Your task to perform on an android device: Open battery settings Image 0: 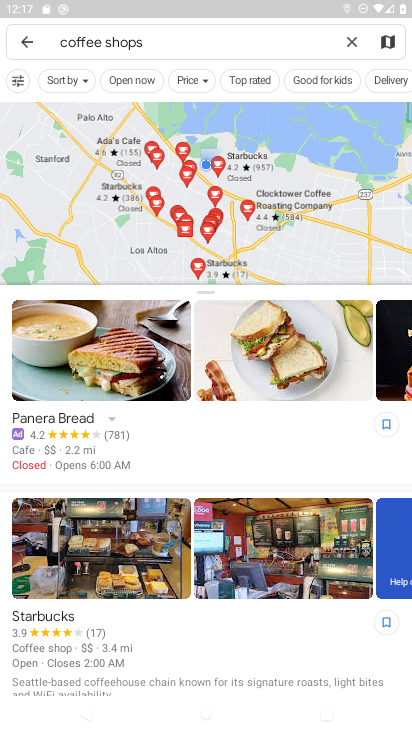
Step 0: press home button
Your task to perform on an android device: Open battery settings Image 1: 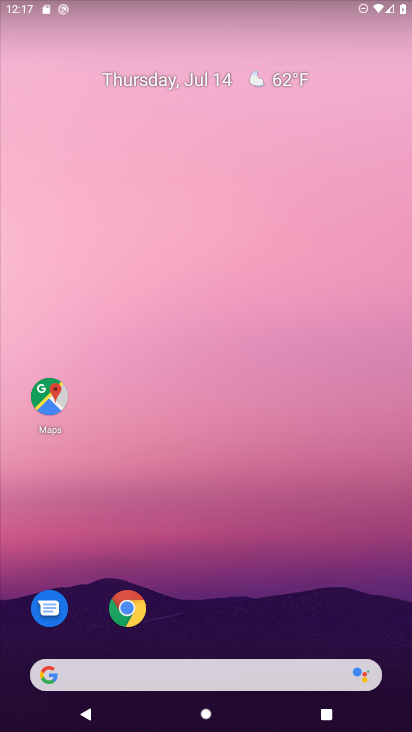
Step 1: drag from (246, 374) to (246, 130)
Your task to perform on an android device: Open battery settings Image 2: 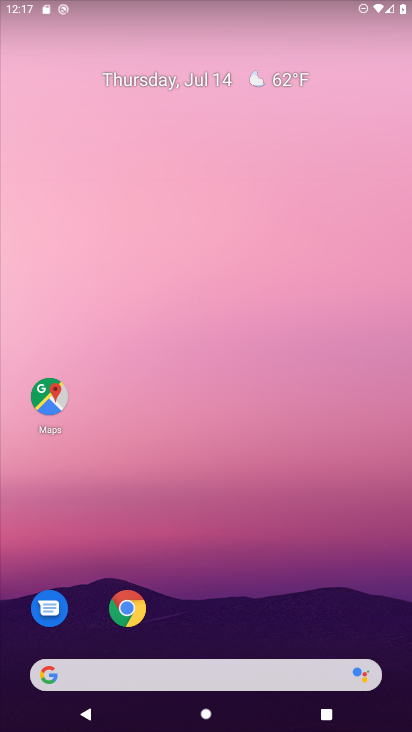
Step 2: drag from (266, 724) to (265, 589)
Your task to perform on an android device: Open battery settings Image 3: 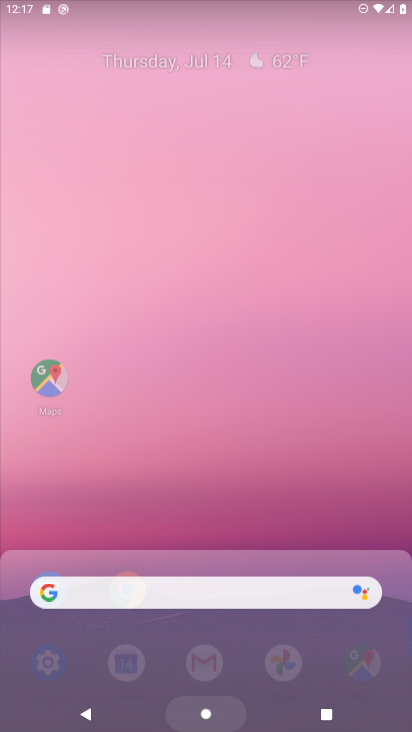
Step 3: drag from (265, 158) to (265, 115)
Your task to perform on an android device: Open battery settings Image 4: 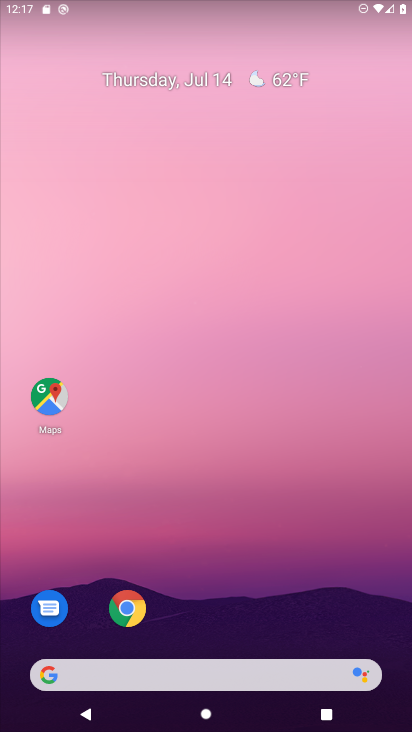
Step 4: drag from (261, 724) to (269, 158)
Your task to perform on an android device: Open battery settings Image 5: 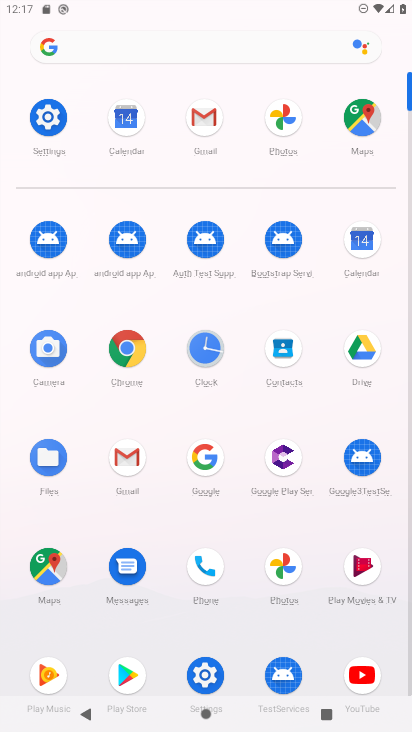
Step 5: click (38, 123)
Your task to perform on an android device: Open battery settings Image 6: 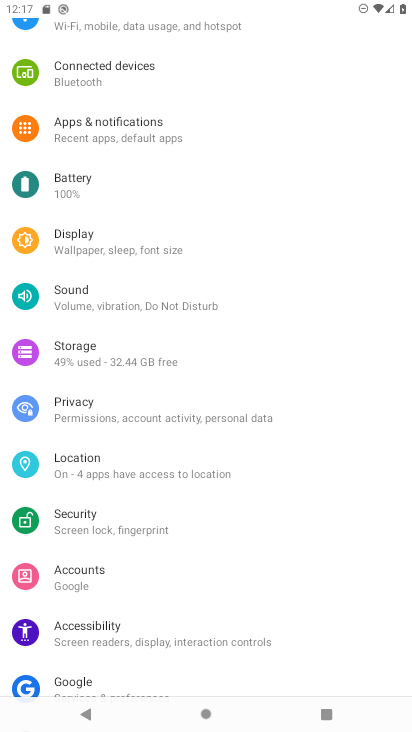
Step 6: click (70, 183)
Your task to perform on an android device: Open battery settings Image 7: 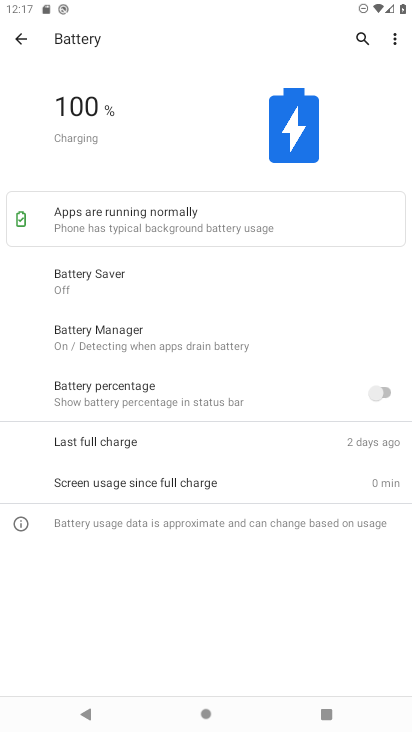
Step 7: task complete